Your task to perform on an android device: Search for pizza restaurants on Maps Image 0: 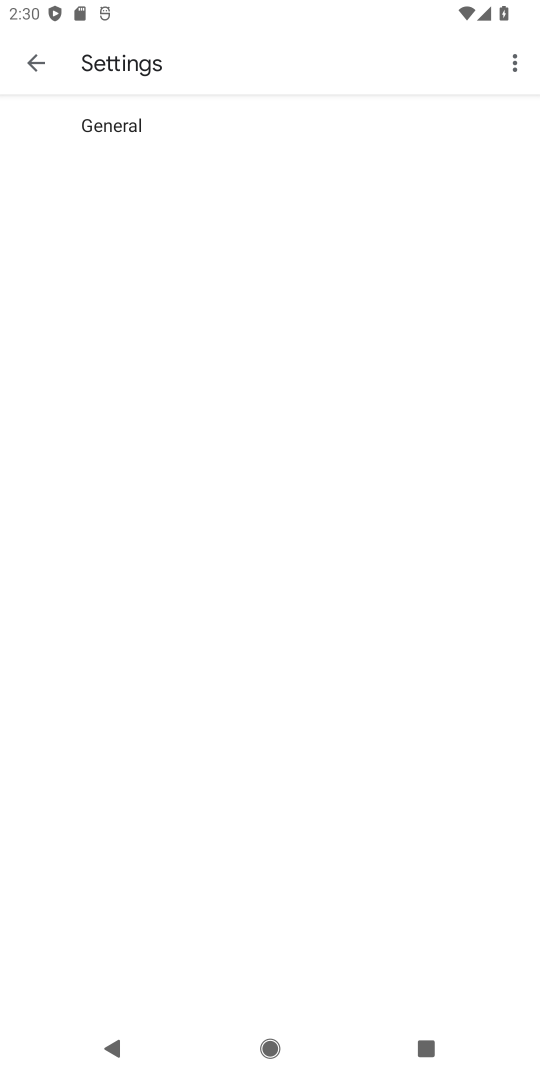
Step 0: press home button
Your task to perform on an android device: Search for pizza restaurants on Maps Image 1: 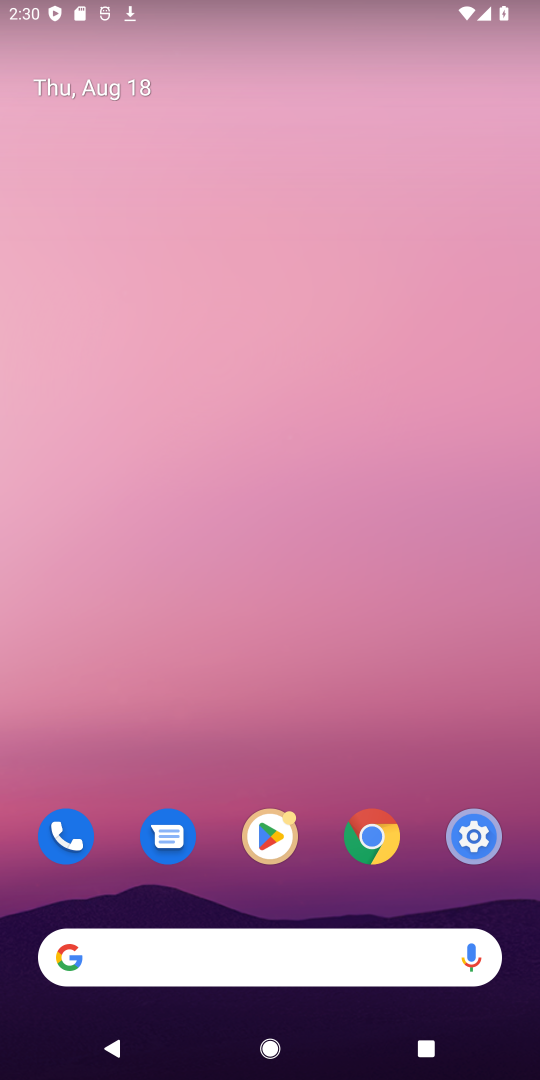
Step 1: drag from (161, 965) to (222, 246)
Your task to perform on an android device: Search for pizza restaurants on Maps Image 2: 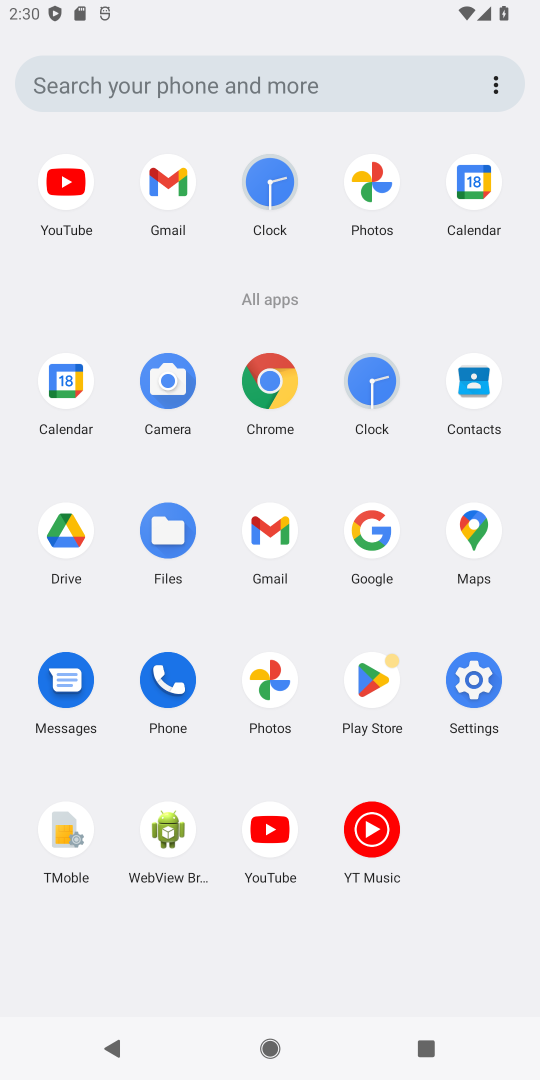
Step 2: click (473, 510)
Your task to perform on an android device: Search for pizza restaurants on Maps Image 3: 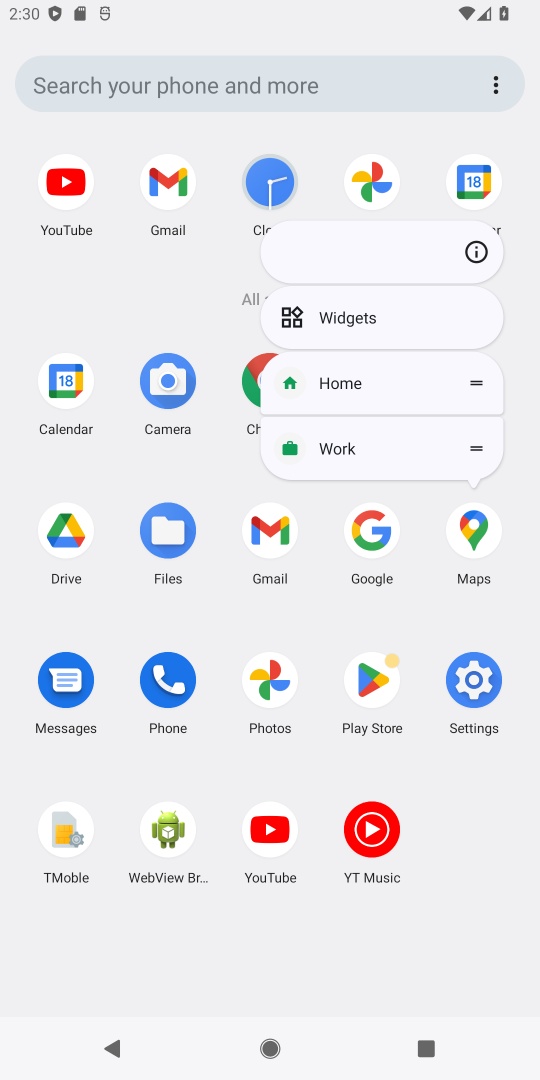
Step 3: click (465, 541)
Your task to perform on an android device: Search for pizza restaurants on Maps Image 4: 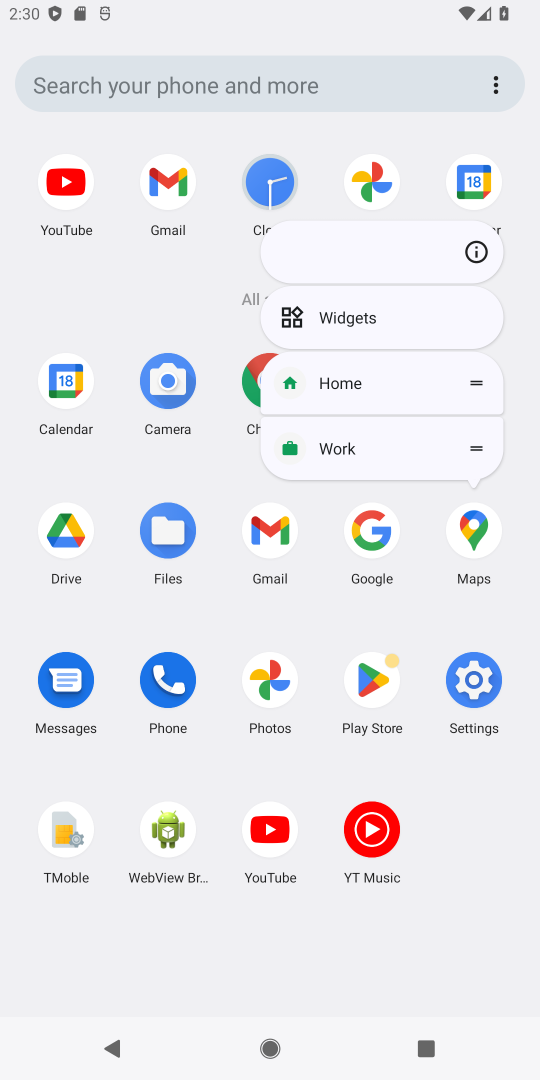
Step 4: click (468, 518)
Your task to perform on an android device: Search for pizza restaurants on Maps Image 5: 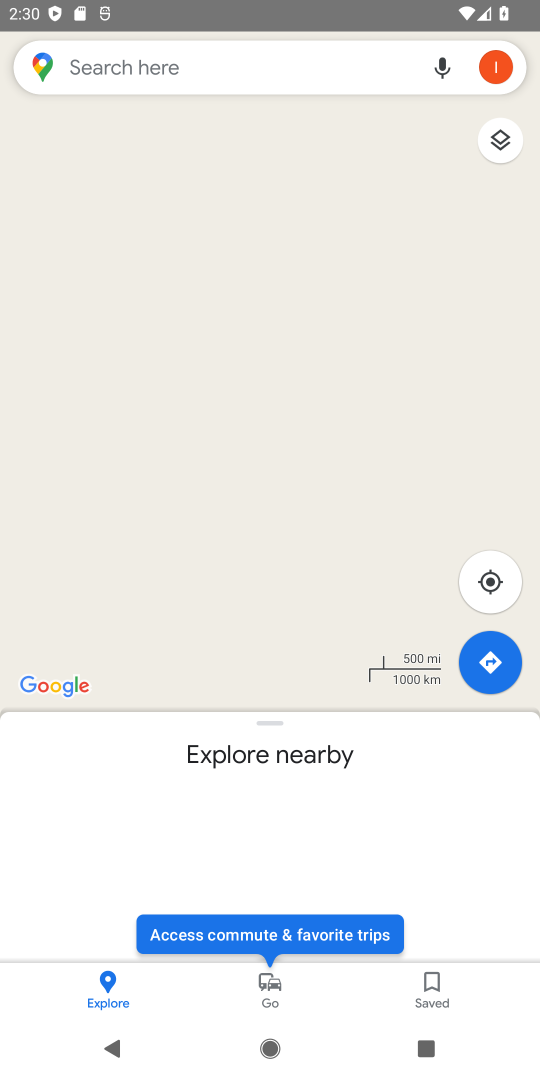
Step 5: click (295, 51)
Your task to perform on an android device: Search for pizza restaurants on Maps Image 6: 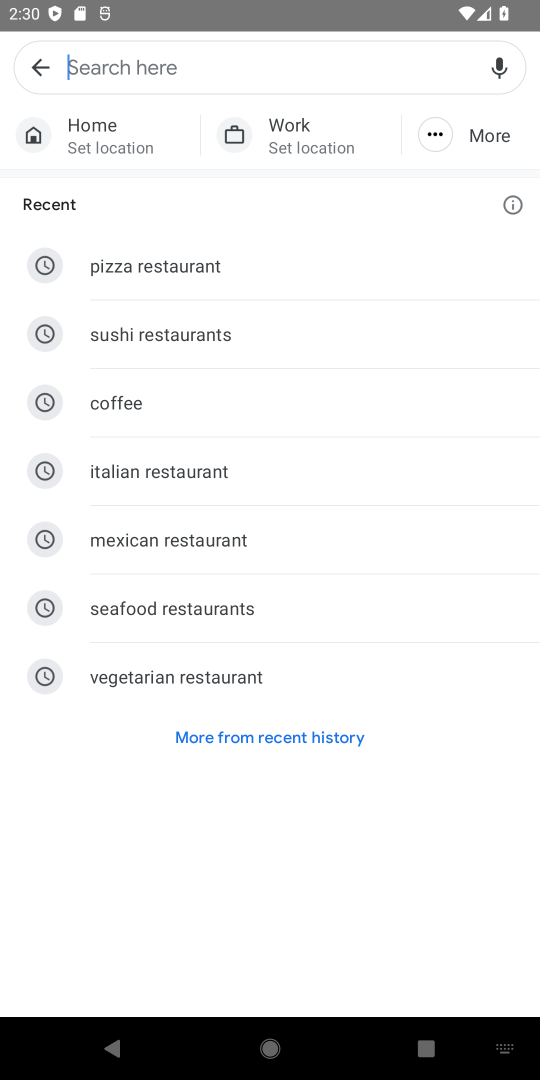
Step 6: click (162, 264)
Your task to perform on an android device: Search for pizza restaurants on Maps Image 7: 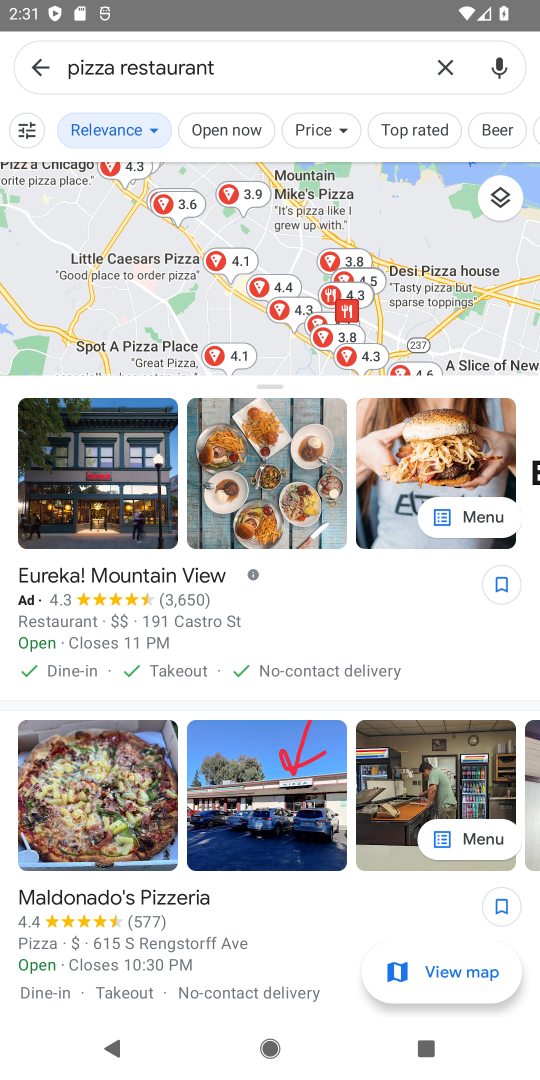
Step 7: task complete